Your task to perform on an android device: clear all cookies in the chrome app Image 0: 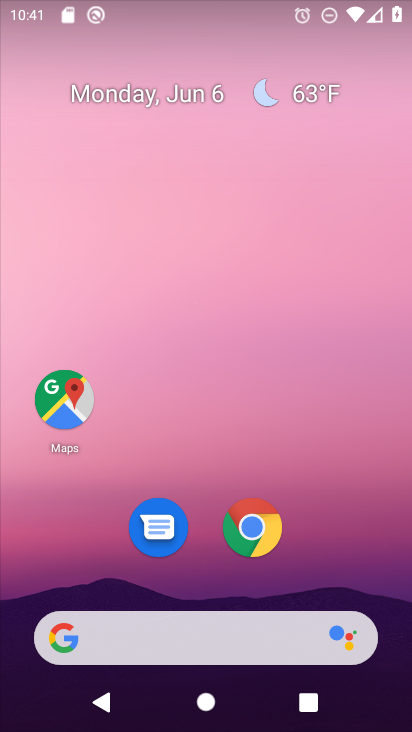
Step 0: drag from (337, 566) to (347, 180)
Your task to perform on an android device: clear all cookies in the chrome app Image 1: 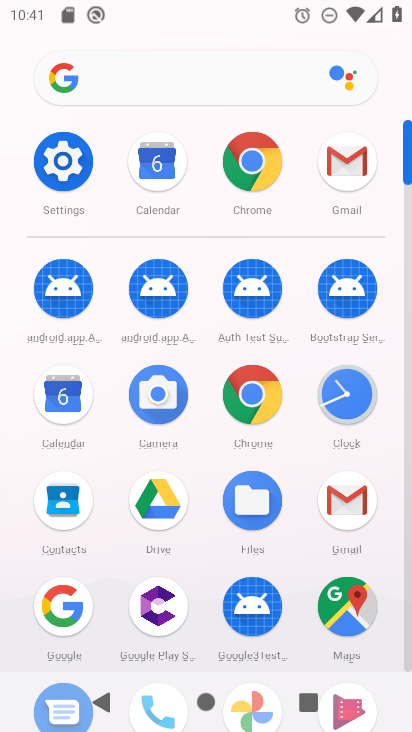
Step 1: click (264, 407)
Your task to perform on an android device: clear all cookies in the chrome app Image 2: 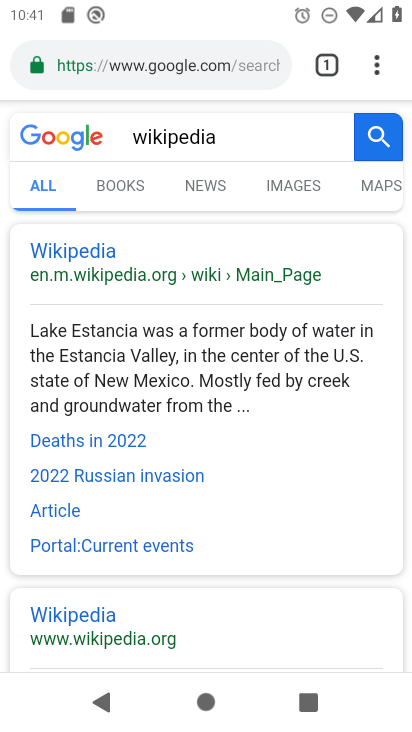
Step 2: click (378, 66)
Your task to perform on an android device: clear all cookies in the chrome app Image 3: 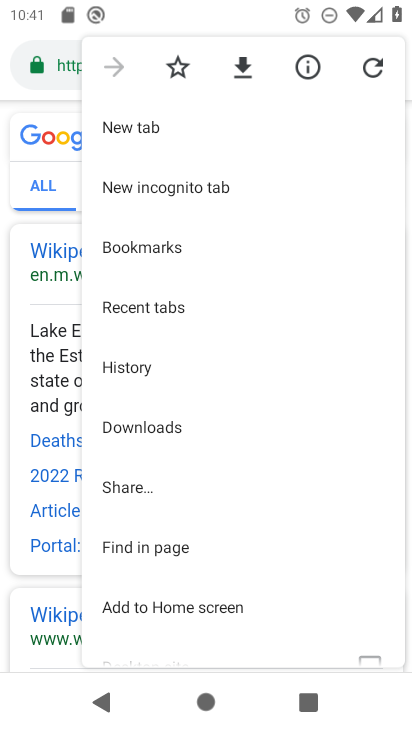
Step 3: drag from (304, 437) to (331, 276)
Your task to perform on an android device: clear all cookies in the chrome app Image 4: 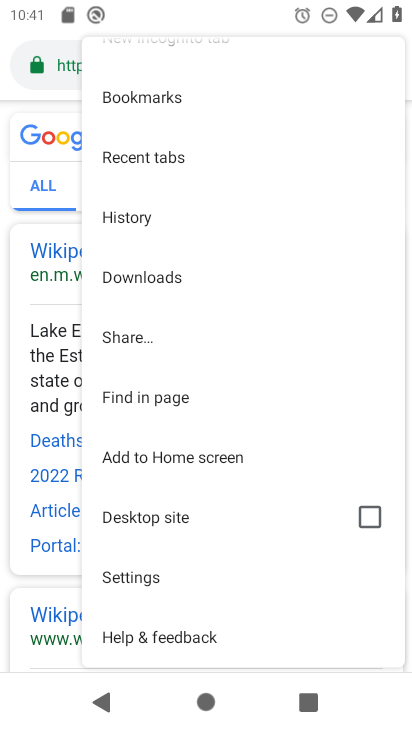
Step 4: drag from (297, 475) to (304, 339)
Your task to perform on an android device: clear all cookies in the chrome app Image 5: 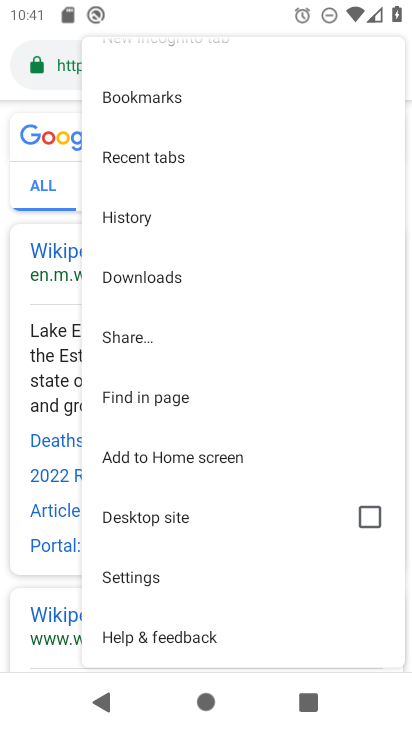
Step 5: click (154, 579)
Your task to perform on an android device: clear all cookies in the chrome app Image 6: 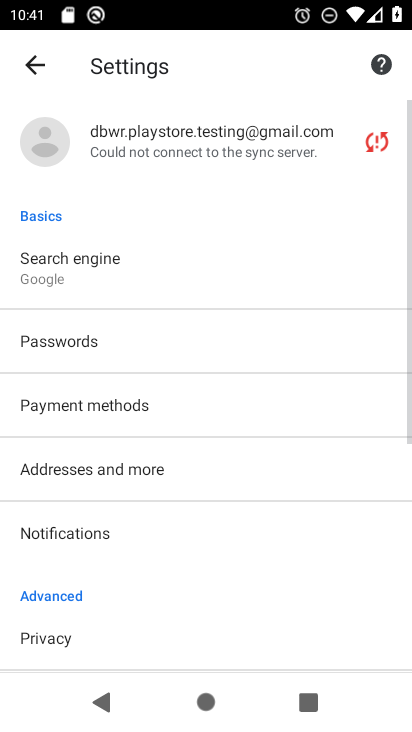
Step 6: drag from (284, 539) to (302, 436)
Your task to perform on an android device: clear all cookies in the chrome app Image 7: 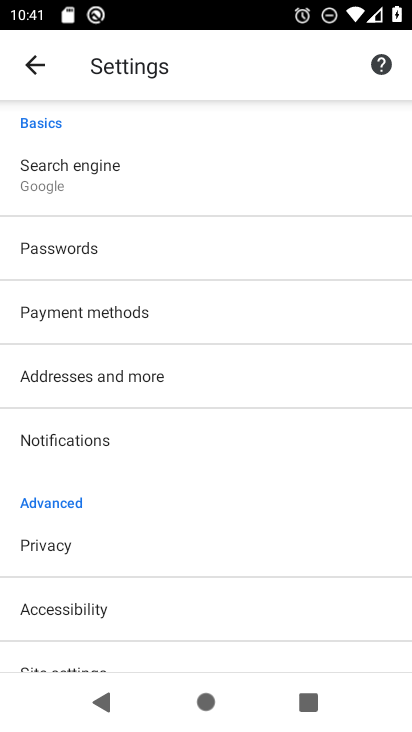
Step 7: drag from (325, 508) to (335, 405)
Your task to perform on an android device: clear all cookies in the chrome app Image 8: 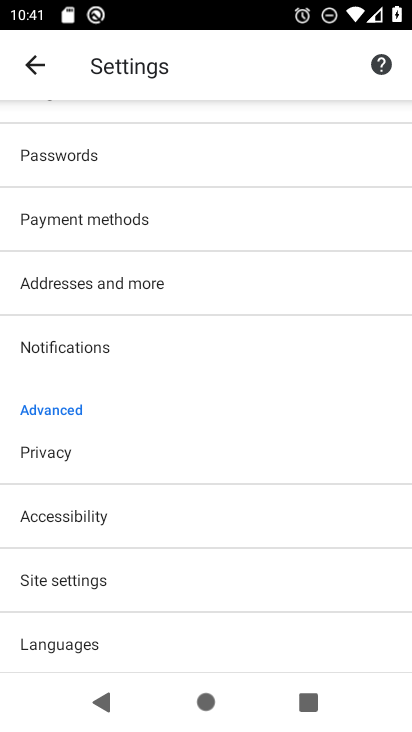
Step 8: drag from (339, 521) to (341, 416)
Your task to perform on an android device: clear all cookies in the chrome app Image 9: 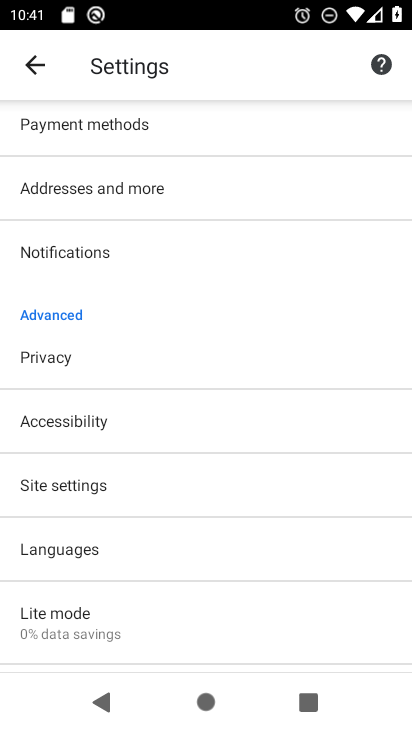
Step 9: drag from (348, 577) to (343, 461)
Your task to perform on an android device: clear all cookies in the chrome app Image 10: 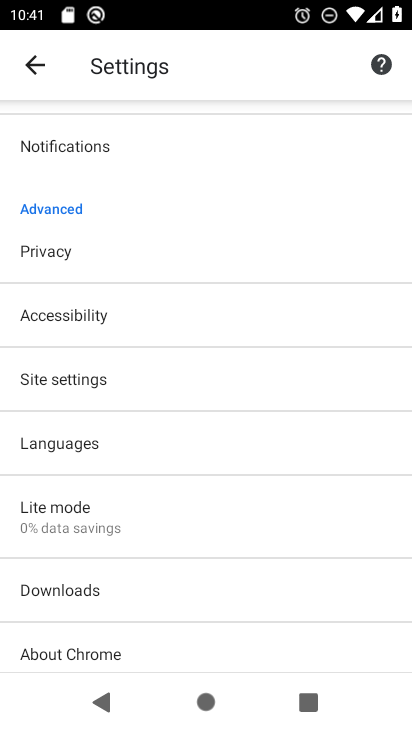
Step 10: drag from (352, 598) to (360, 464)
Your task to perform on an android device: clear all cookies in the chrome app Image 11: 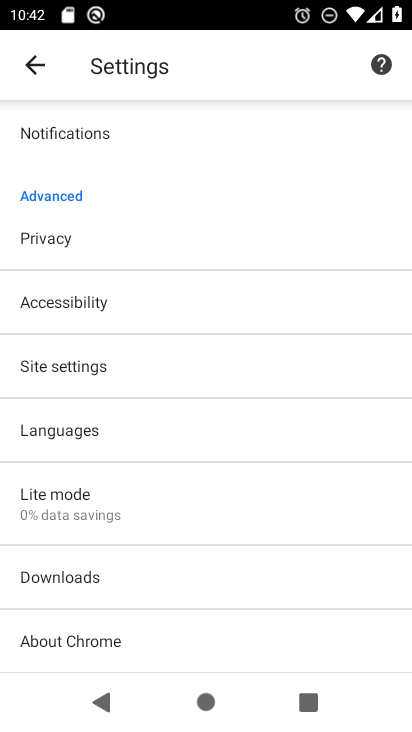
Step 11: drag from (313, 277) to (315, 343)
Your task to perform on an android device: clear all cookies in the chrome app Image 12: 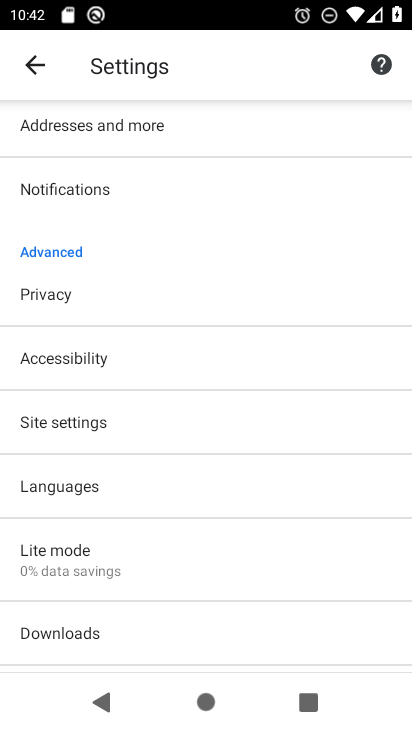
Step 12: click (217, 289)
Your task to perform on an android device: clear all cookies in the chrome app Image 13: 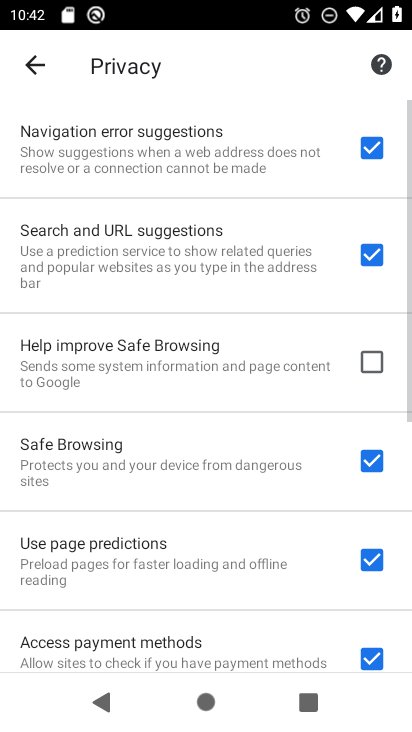
Step 13: drag from (288, 486) to (299, 361)
Your task to perform on an android device: clear all cookies in the chrome app Image 14: 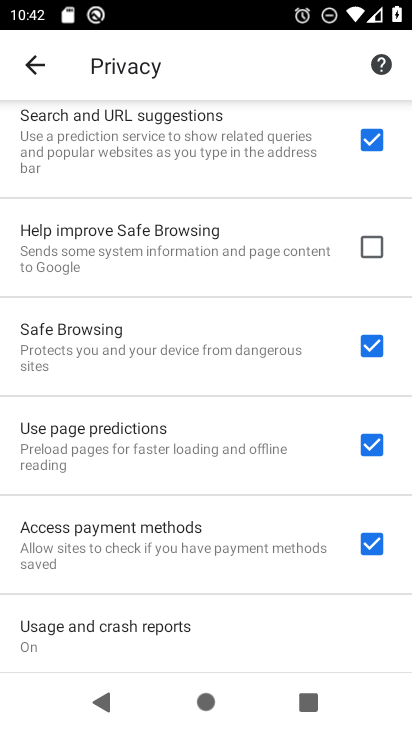
Step 14: drag from (279, 561) to (278, 419)
Your task to perform on an android device: clear all cookies in the chrome app Image 15: 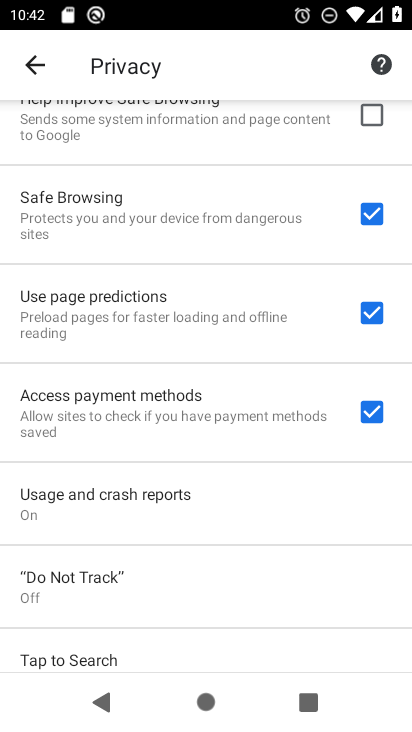
Step 15: drag from (269, 575) to (277, 367)
Your task to perform on an android device: clear all cookies in the chrome app Image 16: 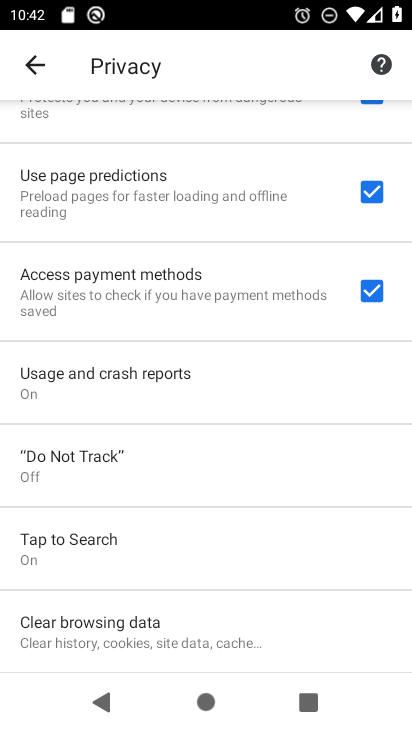
Step 16: click (288, 629)
Your task to perform on an android device: clear all cookies in the chrome app Image 17: 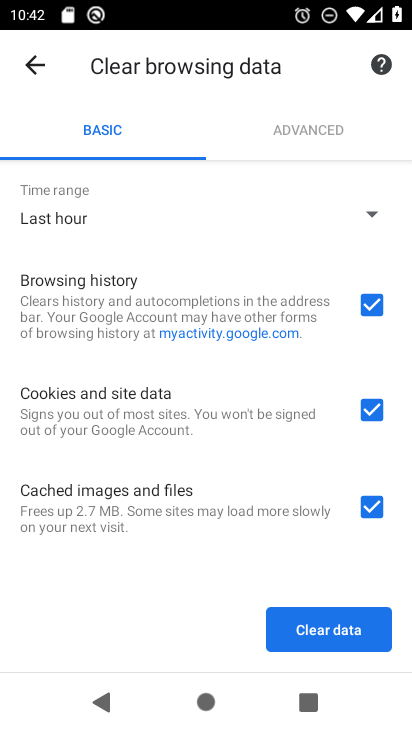
Step 17: click (288, 629)
Your task to perform on an android device: clear all cookies in the chrome app Image 18: 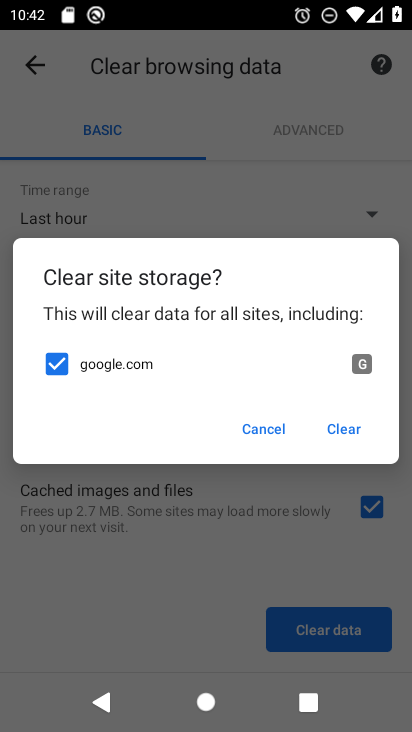
Step 18: click (337, 437)
Your task to perform on an android device: clear all cookies in the chrome app Image 19: 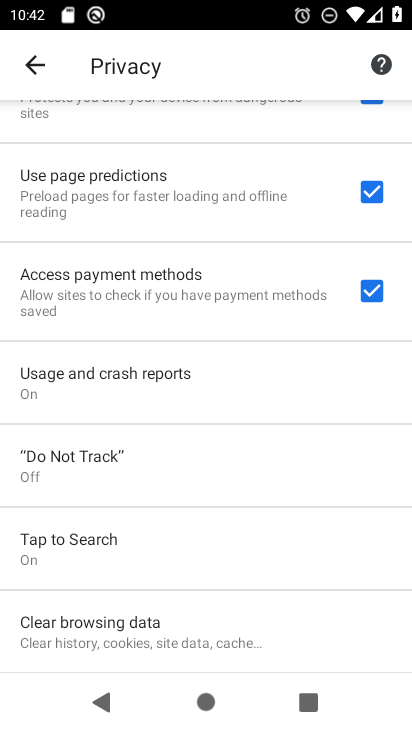
Step 19: click (186, 634)
Your task to perform on an android device: clear all cookies in the chrome app Image 20: 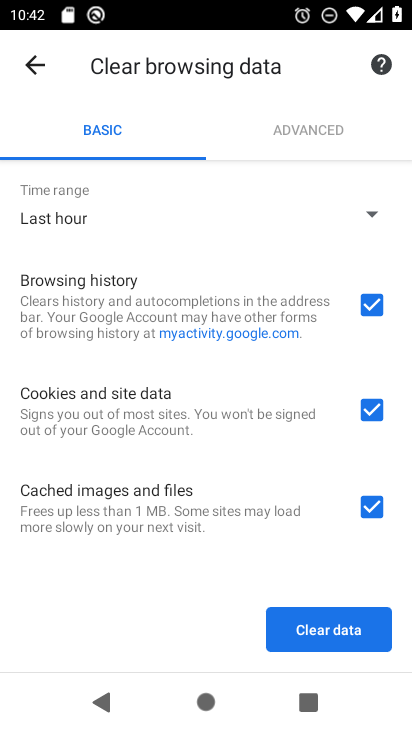
Step 20: click (318, 635)
Your task to perform on an android device: clear all cookies in the chrome app Image 21: 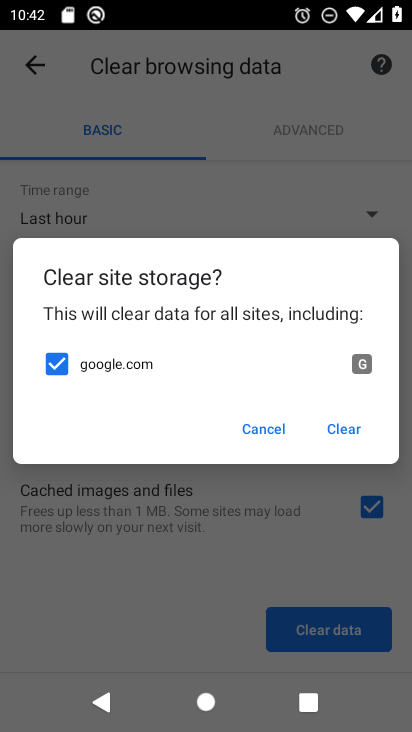
Step 21: click (354, 426)
Your task to perform on an android device: clear all cookies in the chrome app Image 22: 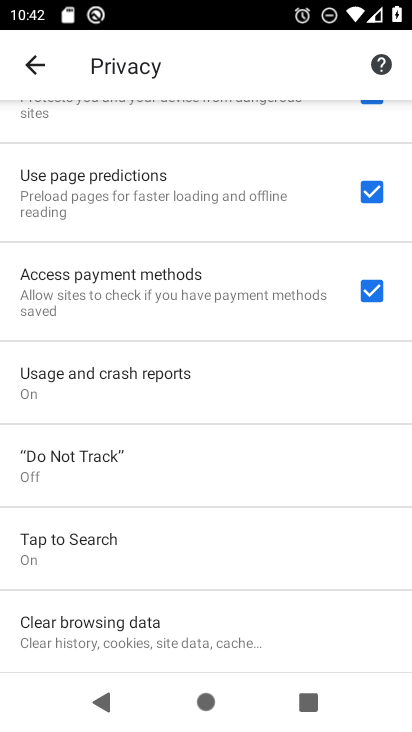
Step 22: task complete